Your task to perform on an android device: toggle notification dots Image 0: 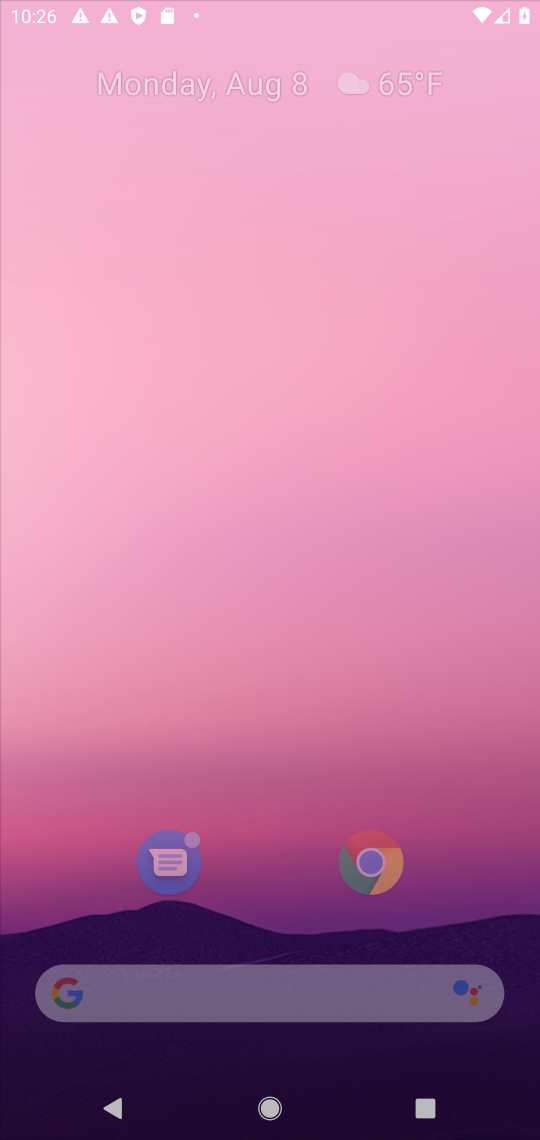
Step 0: press back button
Your task to perform on an android device: toggle notification dots Image 1: 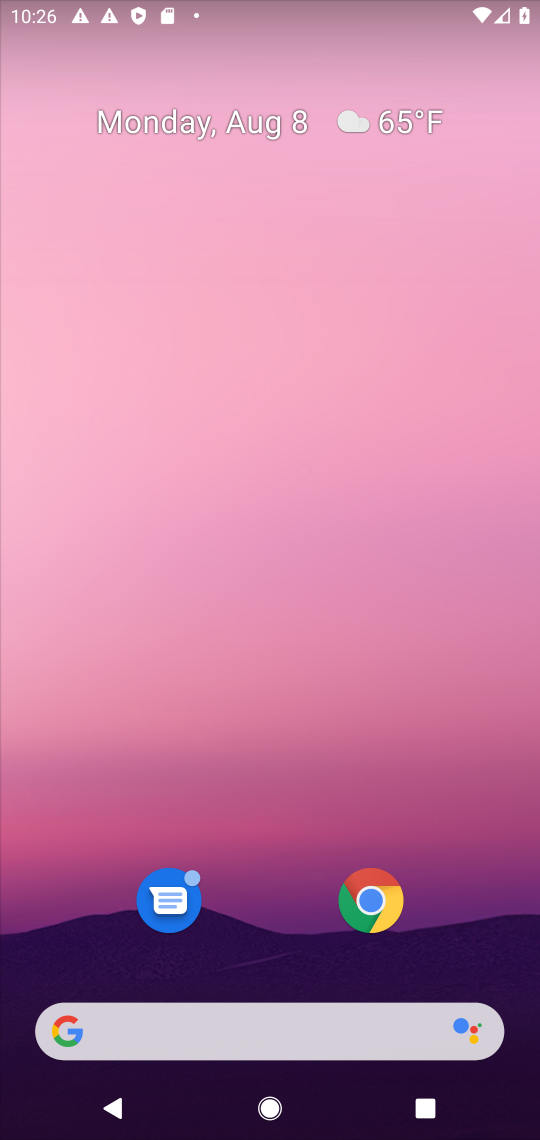
Step 1: press home button
Your task to perform on an android device: toggle notification dots Image 2: 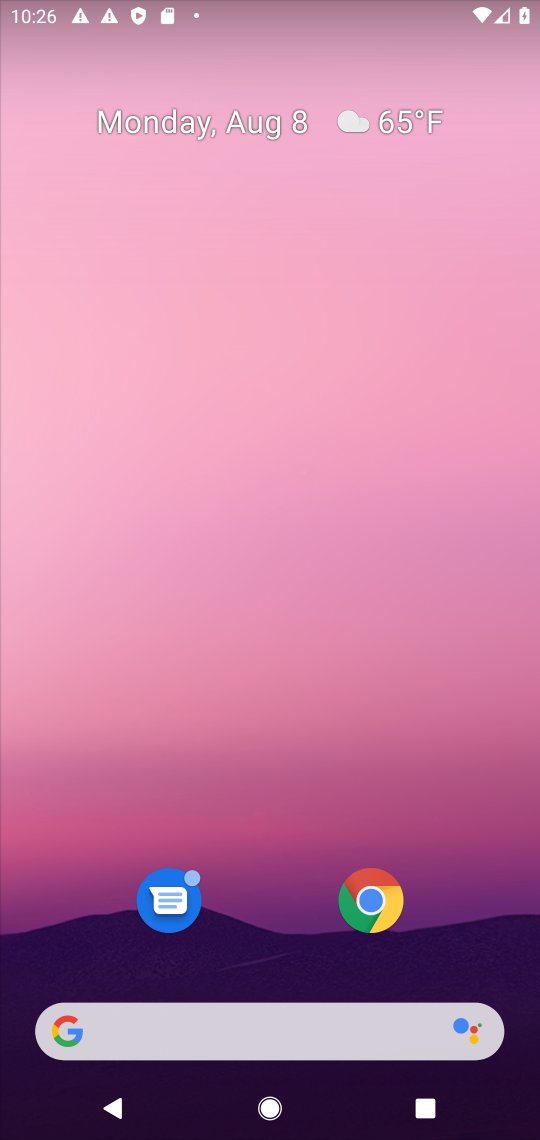
Step 2: drag from (292, 524) to (292, 221)
Your task to perform on an android device: toggle notification dots Image 3: 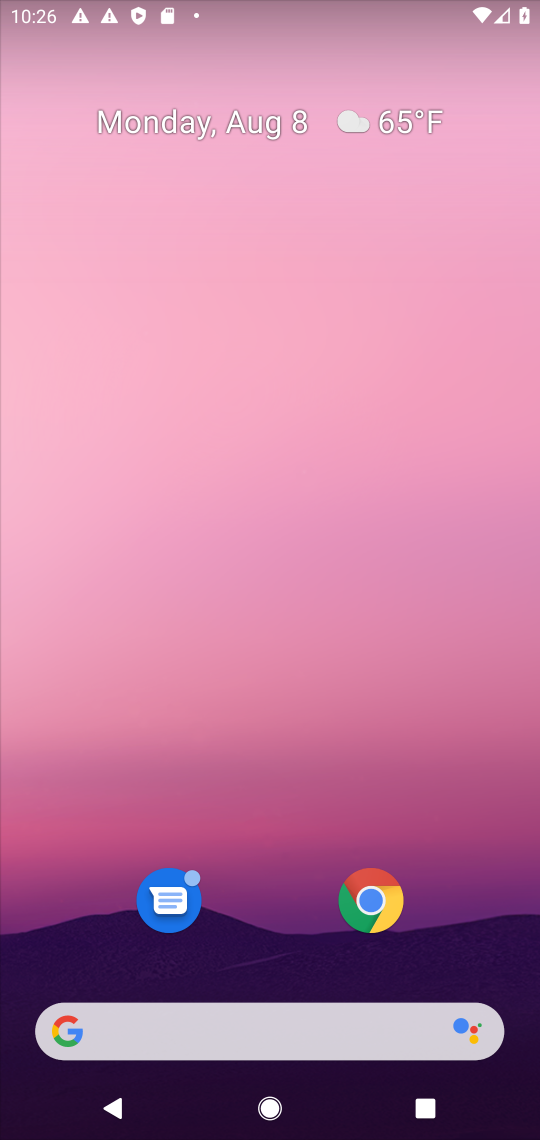
Step 3: drag from (237, 885) to (264, 286)
Your task to perform on an android device: toggle notification dots Image 4: 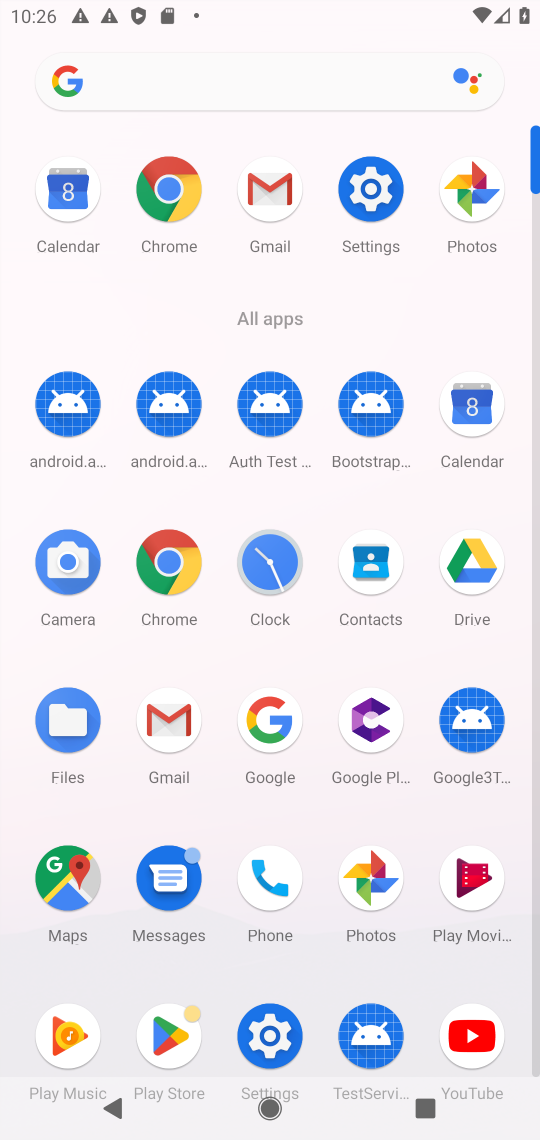
Step 4: click (367, 192)
Your task to perform on an android device: toggle notification dots Image 5: 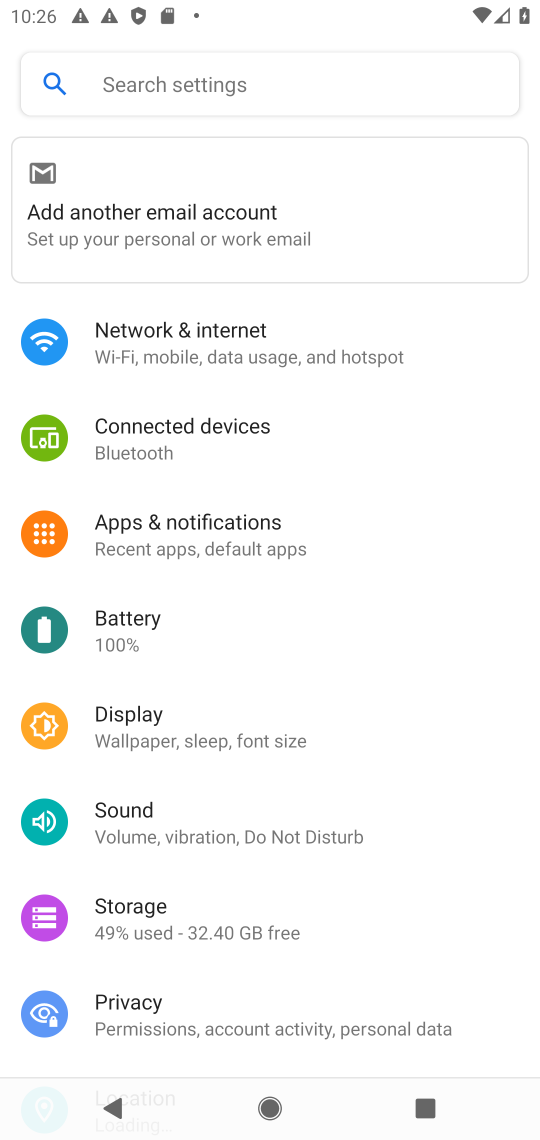
Step 5: click (164, 525)
Your task to perform on an android device: toggle notification dots Image 6: 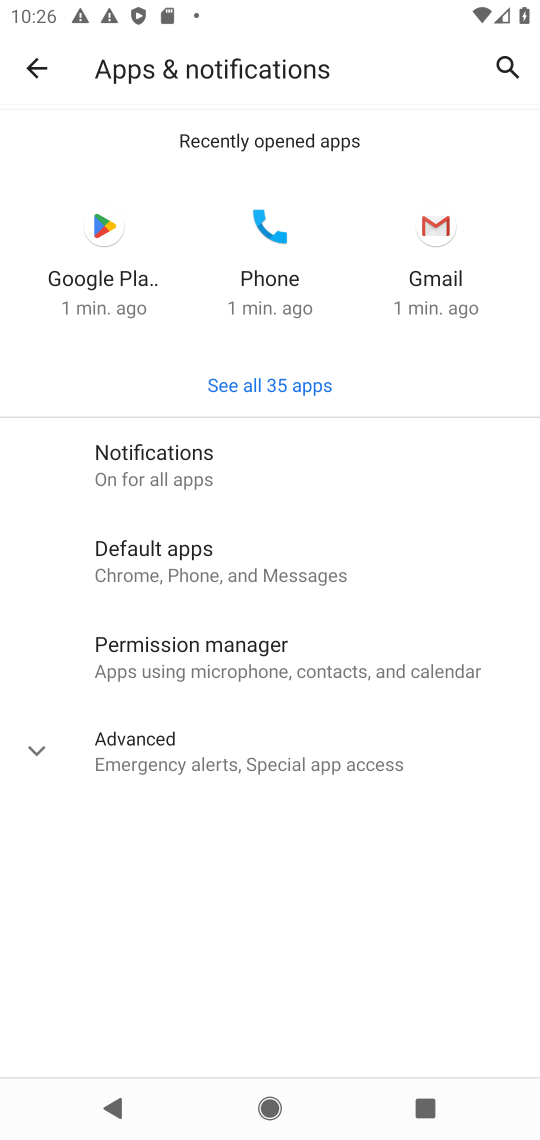
Step 6: click (123, 749)
Your task to perform on an android device: toggle notification dots Image 7: 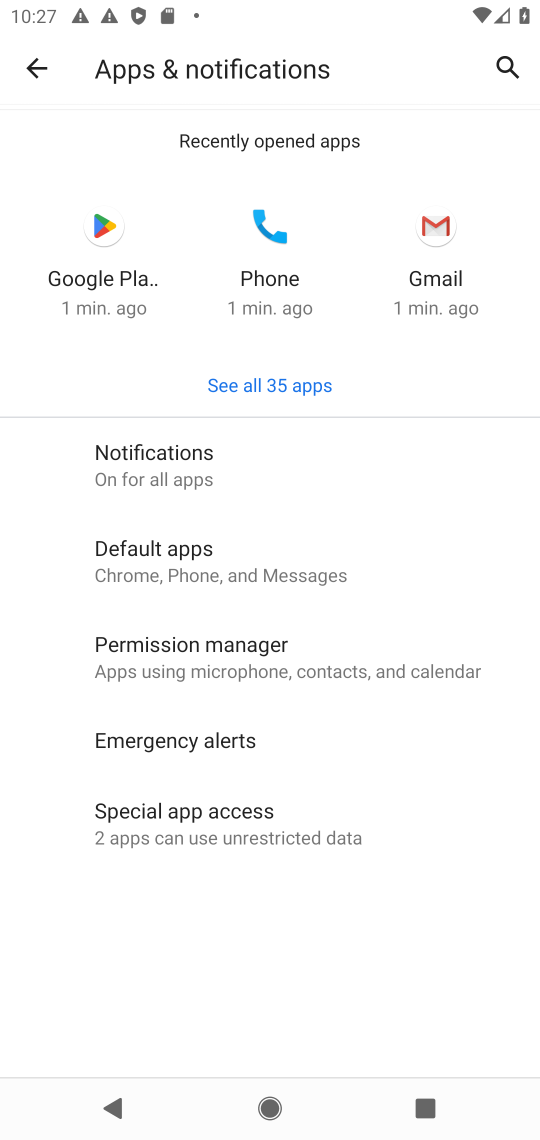
Step 7: click (148, 465)
Your task to perform on an android device: toggle notification dots Image 8: 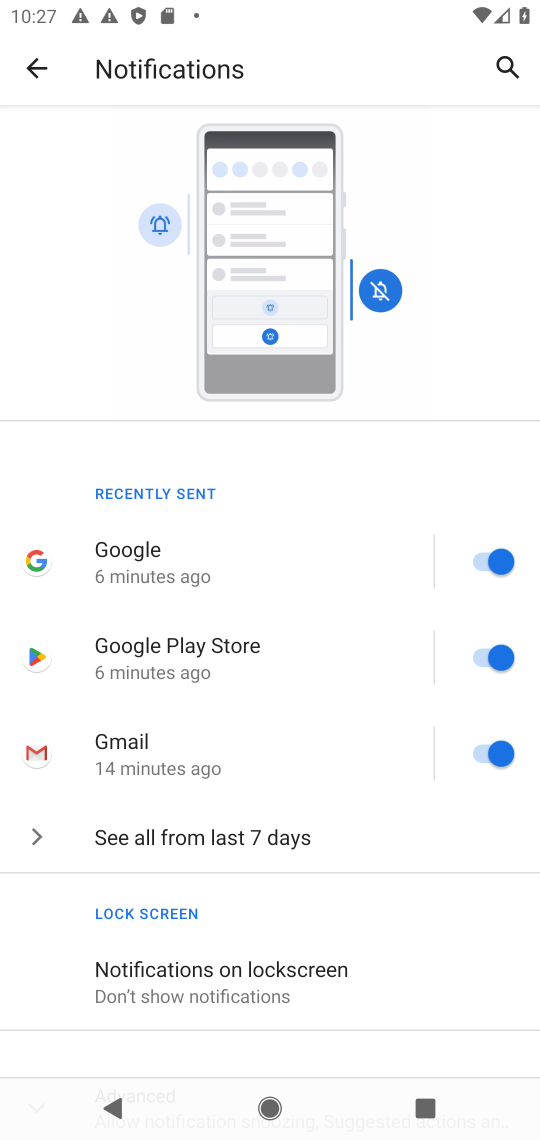
Step 8: drag from (308, 906) to (289, 529)
Your task to perform on an android device: toggle notification dots Image 9: 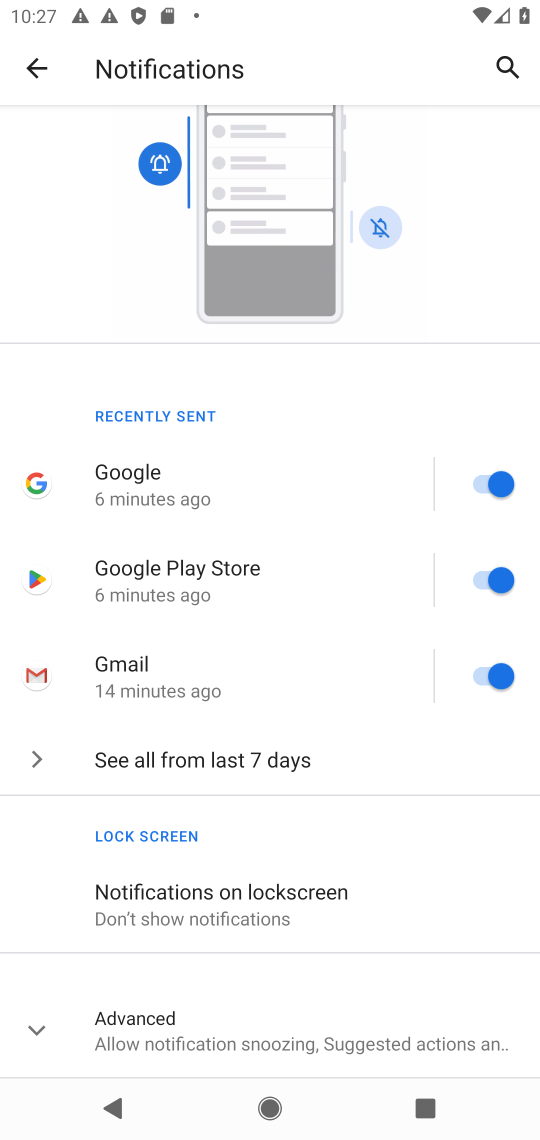
Step 9: drag from (222, 923) to (222, 664)
Your task to perform on an android device: toggle notification dots Image 10: 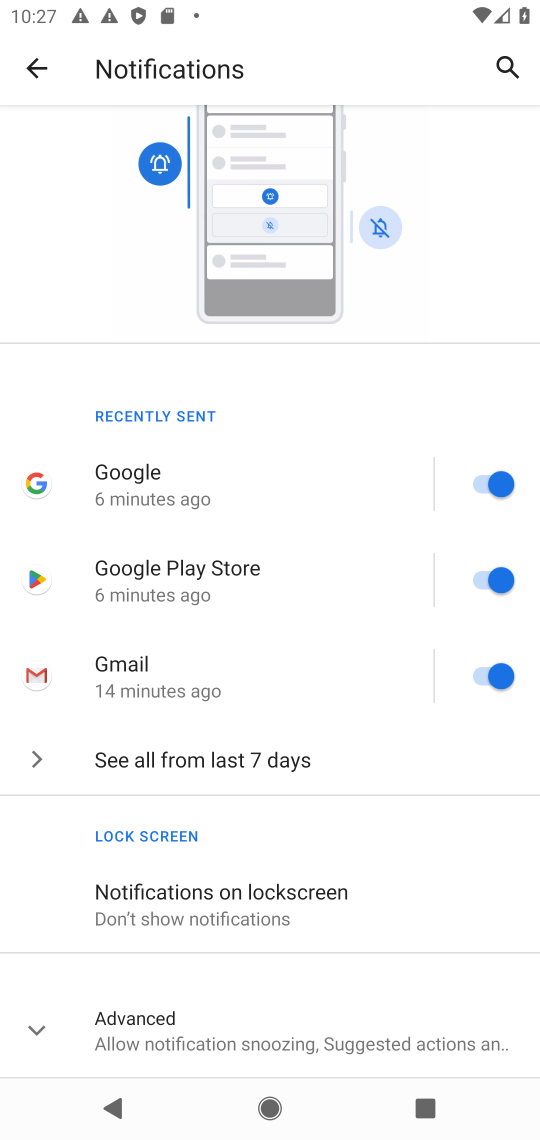
Step 10: click (116, 1045)
Your task to perform on an android device: toggle notification dots Image 11: 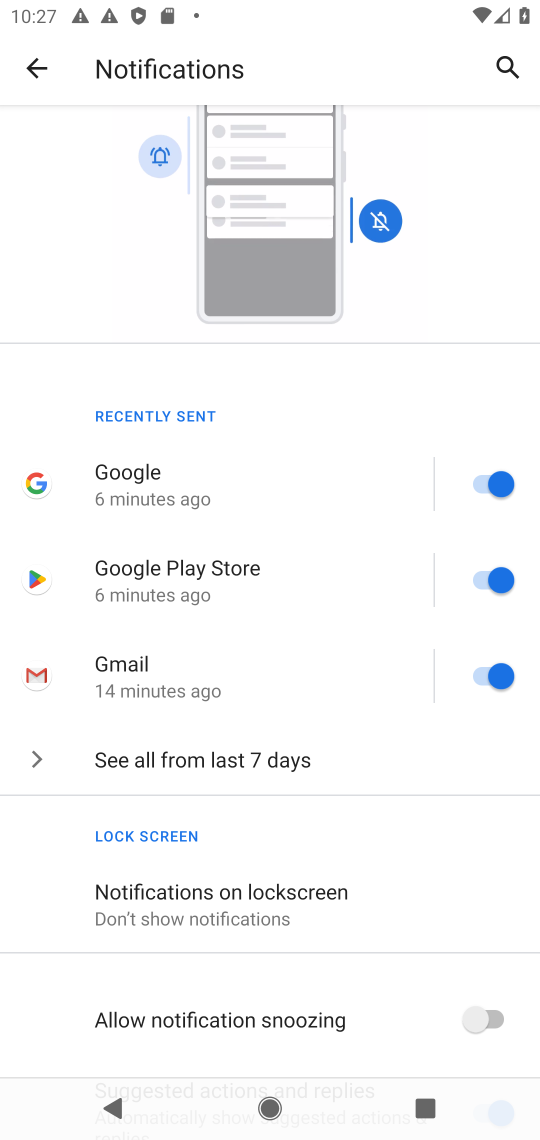
Step 11: drag from (227, 955) to (227, 702)
Your task to perform on an android device: toggle notification dots Image 12: 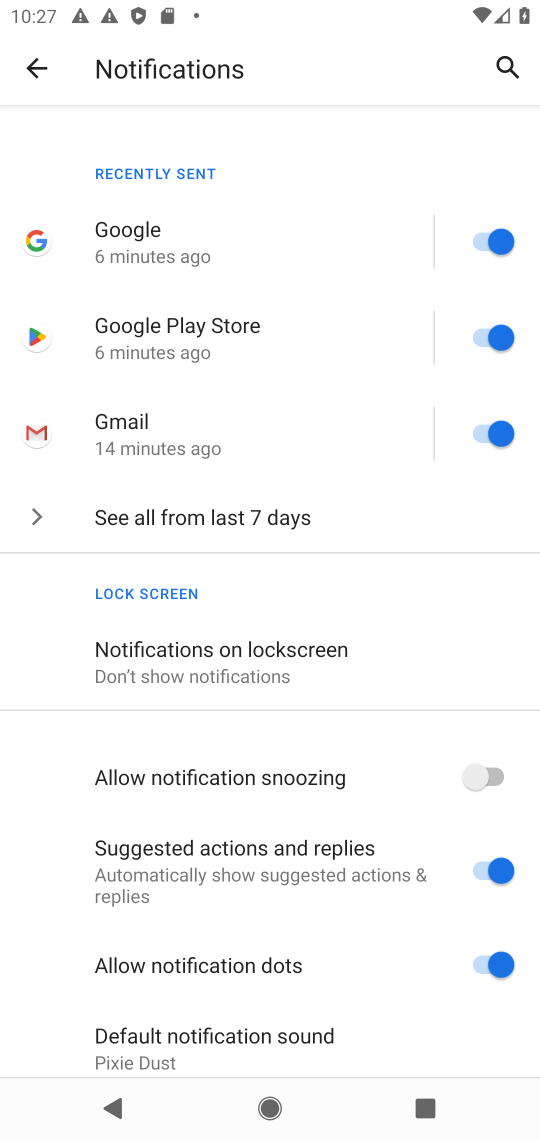
Step 12: click (481, 963)
Your task to perform on an android device: toggle notification dots Image 13: 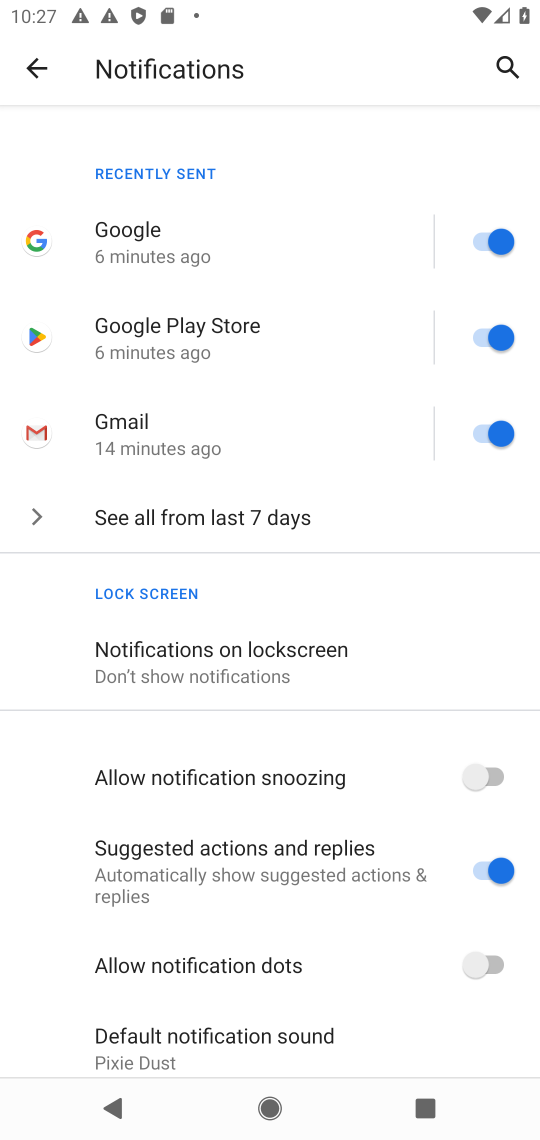
Step 13: task complete